Your task to perform on an android device: open app "Life360: Find Family & Friends" (install if not already installed) and go to login screen Image 0: 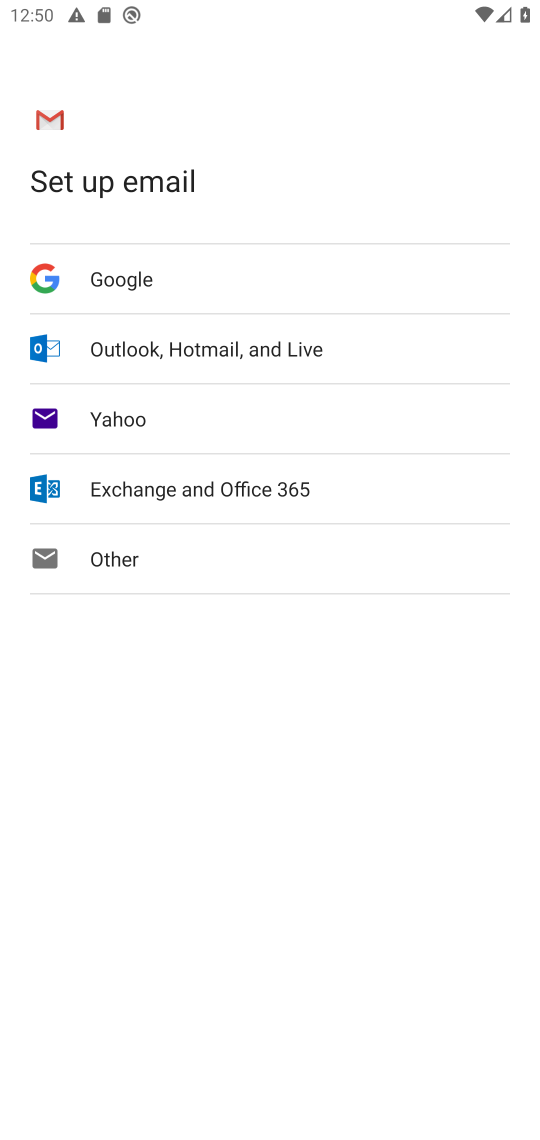
Step 0: press home button
Your task to perform on an android device: open app "Life360: Find Family & Friends" (install if not already installed) and go to login screen Image 1: 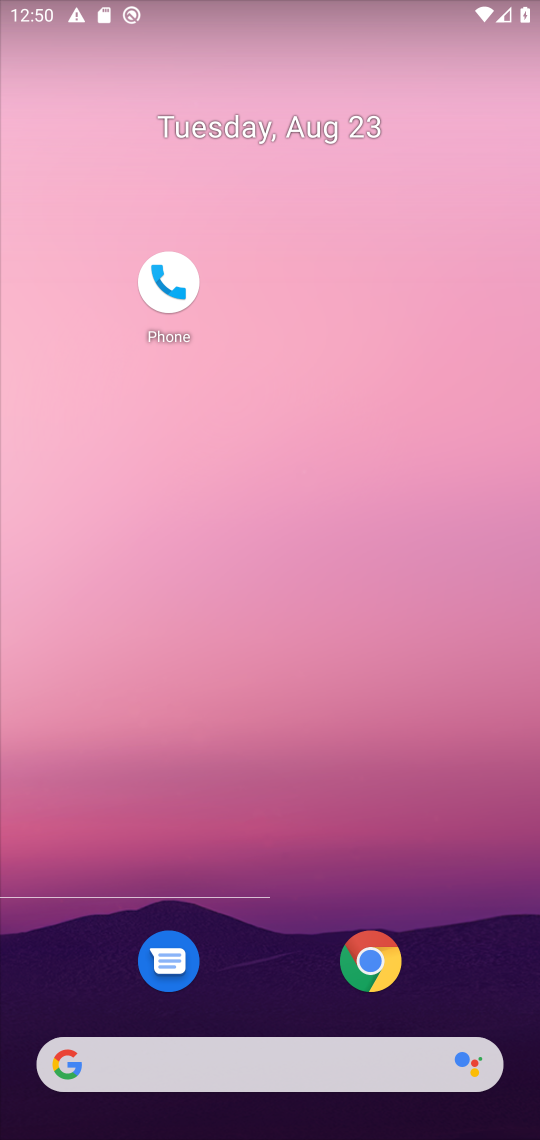
Step 1: drag from (249, 1003) to (270, 8)
Your task to perform on an android device: open app "Life360: Find Family & Friends" (install if not already installed) and go to login screen Image 2: 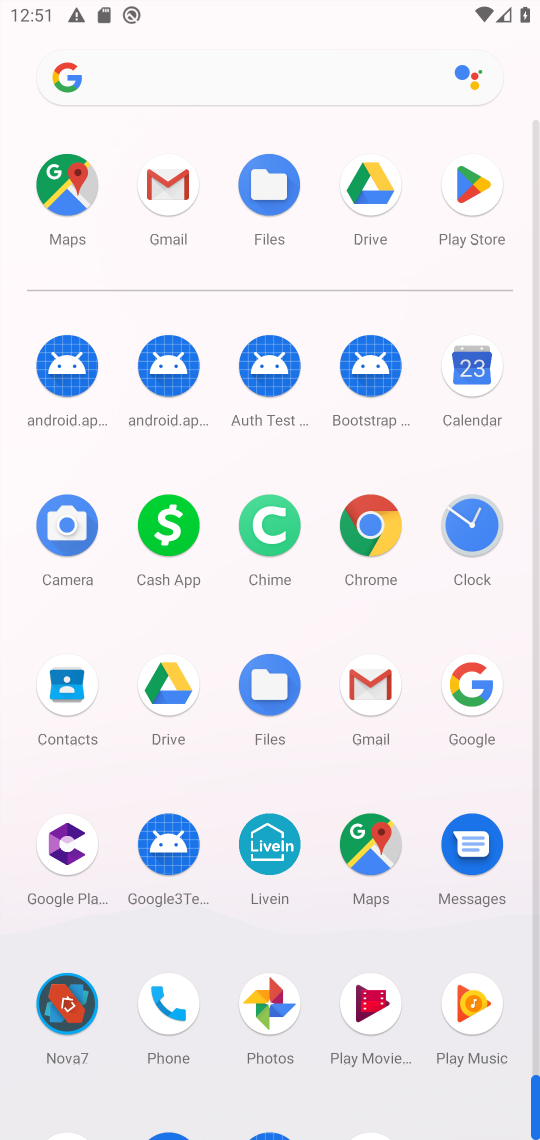
Step 2: click (490, 200)
Your task to perform on an android device: open app "Life360: Find Family & Friends" (install if not already installed) and go to login screen Image 3: 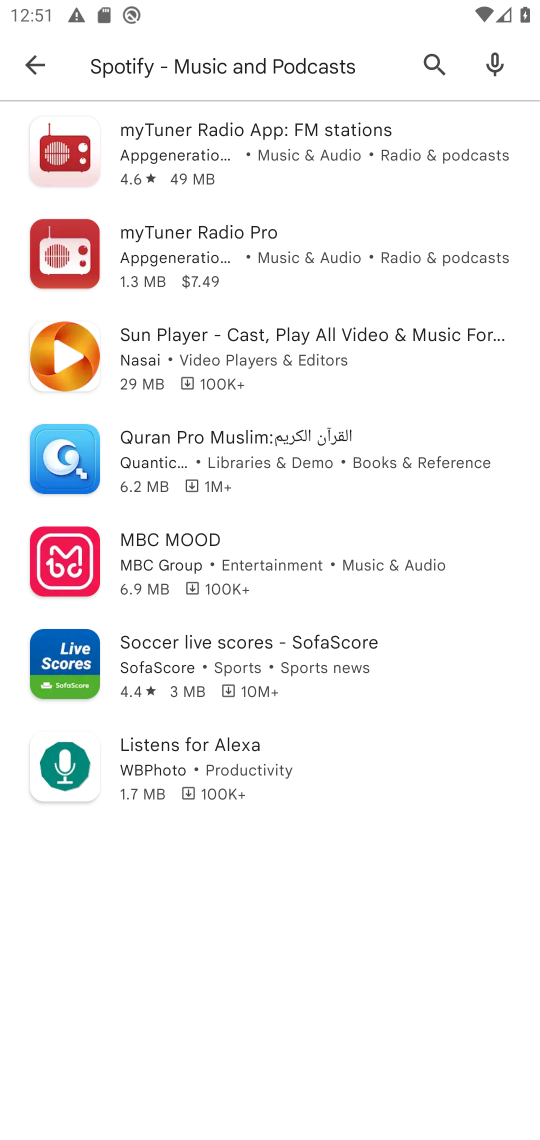
Step 3: click (438, 87)
Your task to perform on an android device: open app "Life360: Find Family & Friends" (install if not already installed) and go to login screen Image 4: 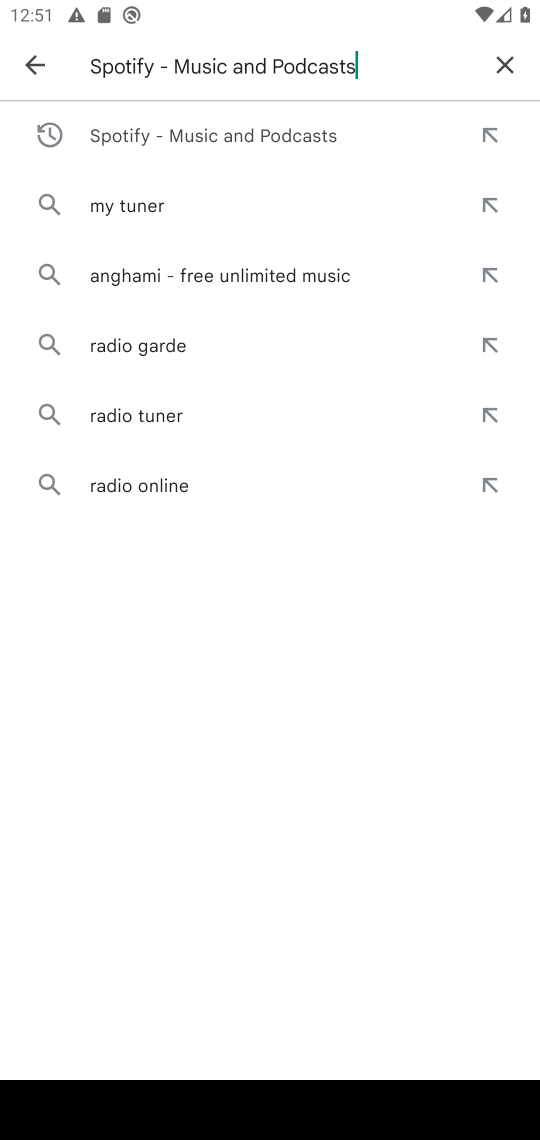
Step 4: click (494, 58)
Your task to perform on an android device: open app "Life360: Find Family & Friends" (install if not already installed) and go to login screen Image 5: 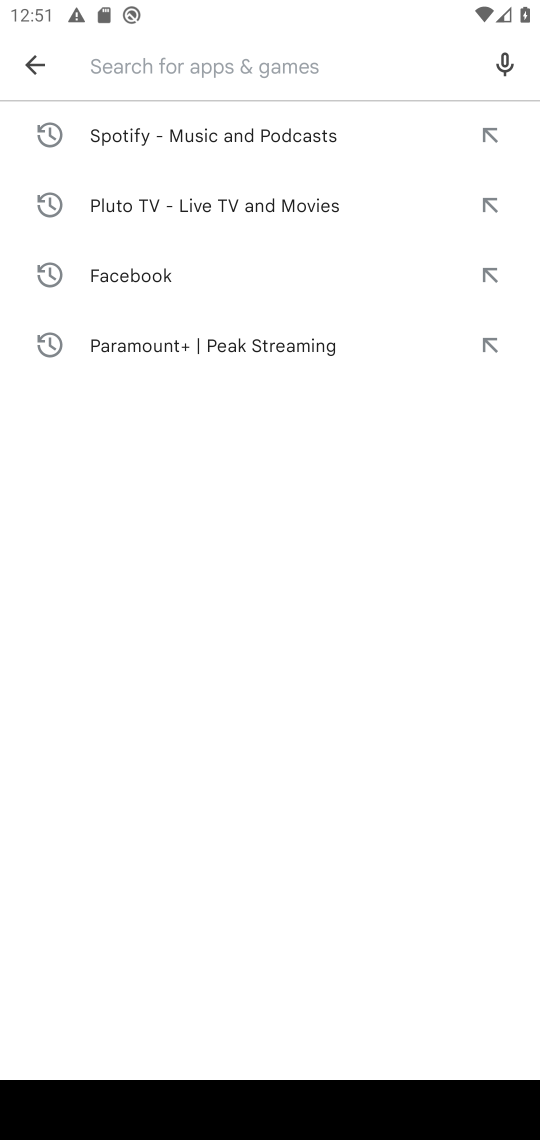
Step 5: type "life360"
Your task to perform on an android device: open app "Life360: Find Family & Friends" (install if not already installed) and go to login screen Image 6: 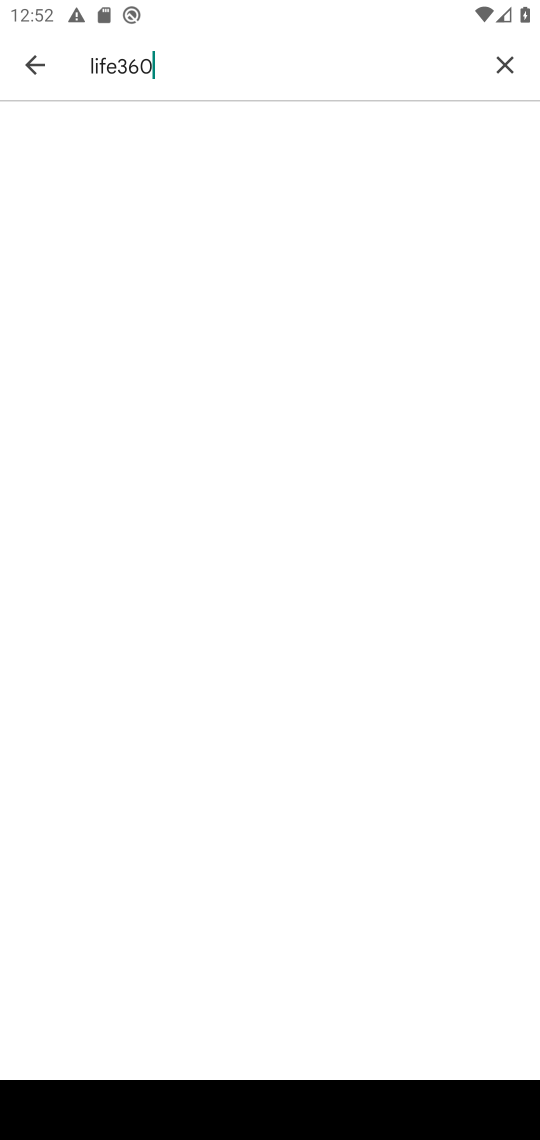
Step 6: task complete